Your task to perform on an android device: move an email to a new category in the gmail app Image 0: 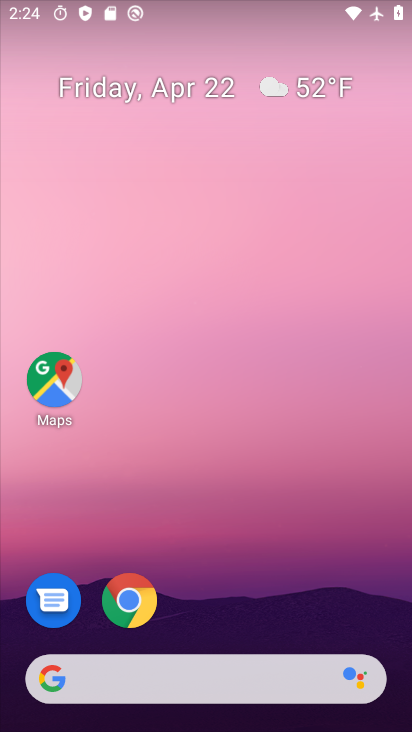
Step 0: drag from (230, 707) to (235, 157)
Your task to perform on an android device: move an email to a new category in the gmail app Image 1: 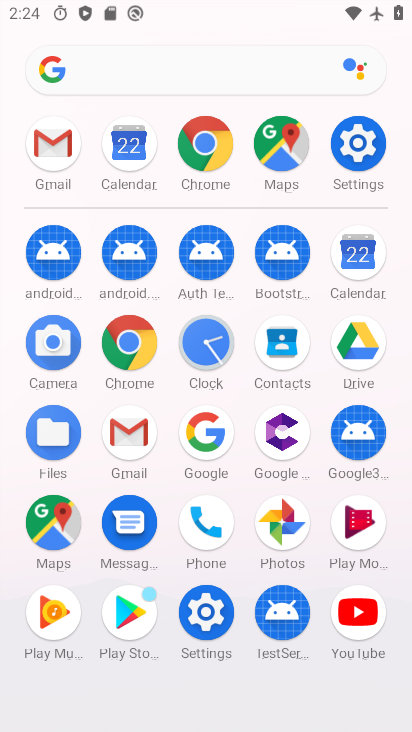
Step 1: click (49, 139)
Your task to perform on an android device: move an email to a new category in the gmail app Image 2: 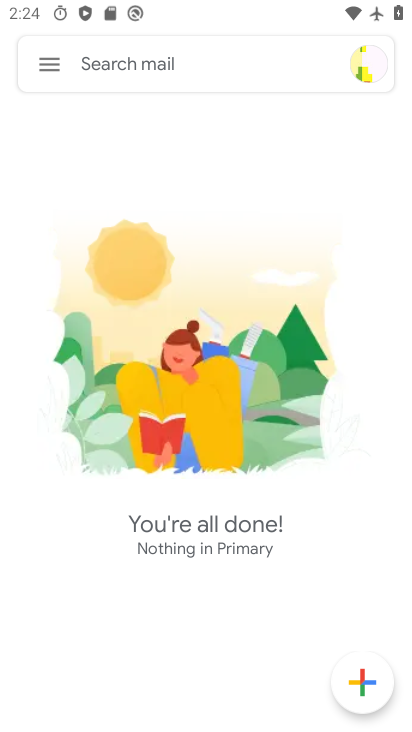
Step 2: task complete